Your task to perform on an android device: delete the emails in spam in the gmail app Image 0: 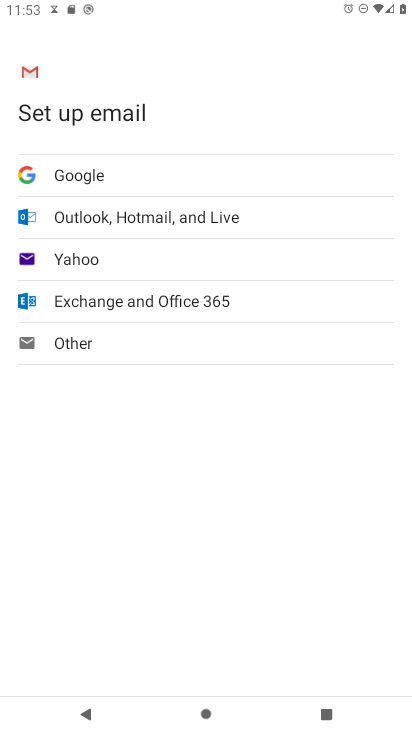
Step 0: press home button
Your task to perform on an android device: delete the emails in spam in the gmail app Image 1: 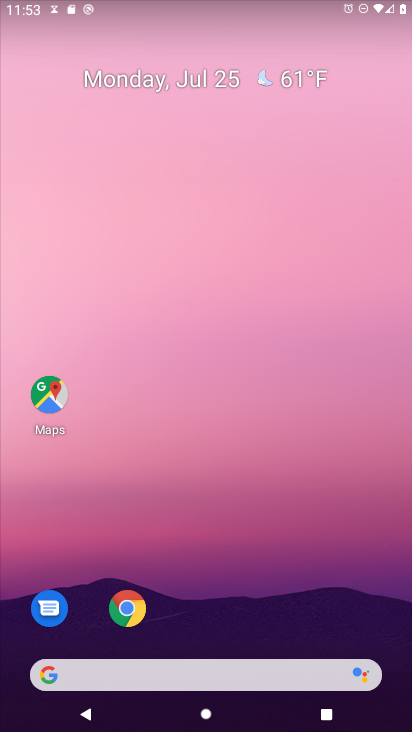
Step 1: drag from (171, 670) to (307, 0)
Your task to perform on an android device: delete the emails in spam in the gmail app Image 2: 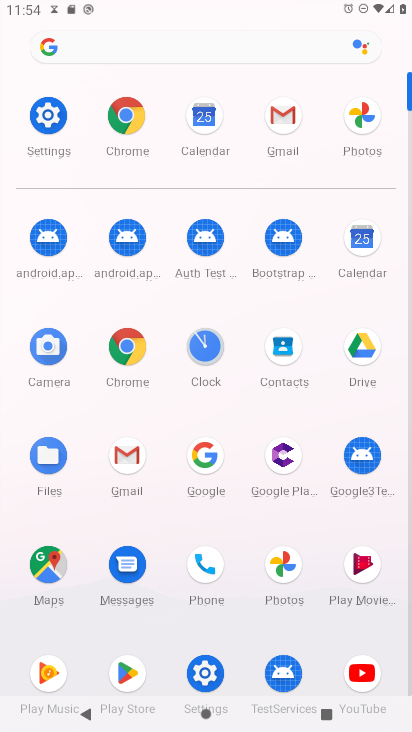
Step 2: click (125, 454)
Your task to perform on an android device: delete the emails in spam in the gmail app Image 3: 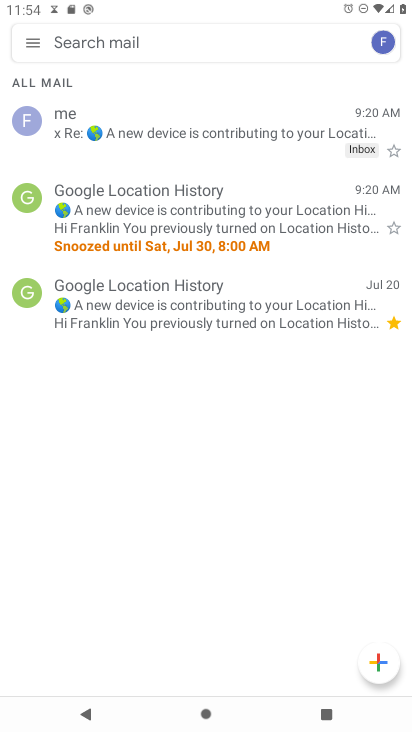
Step 3: click (125, 454)
Your task to perform on an android device: delete the emails in spam in the gmail app Image 4: 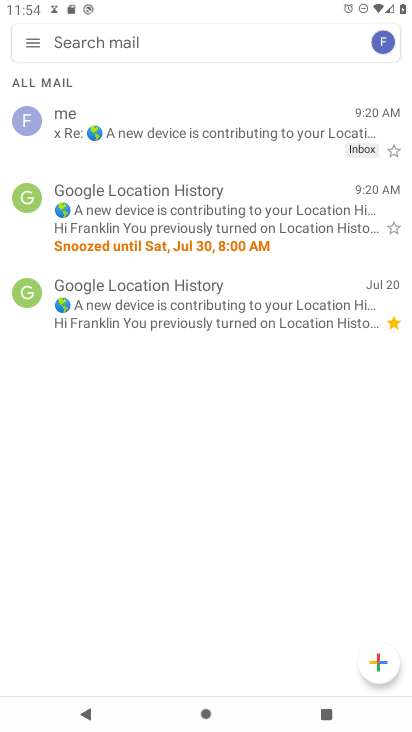
Step 4: click (35, 42)
Your task to perform on an android device: delete the emails in spam in the gmail app Image 5: 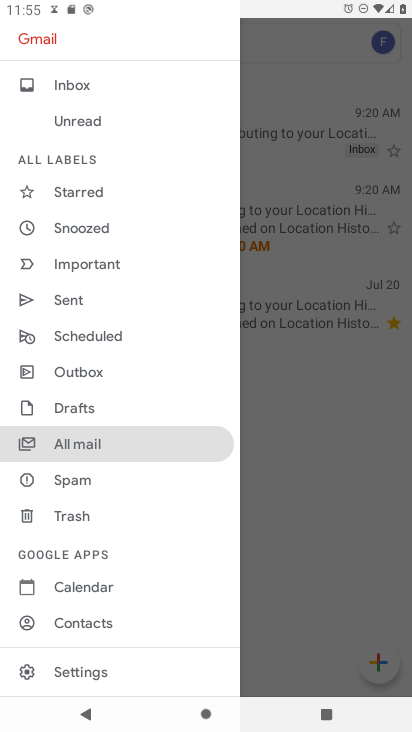
Step 5: drag from (83, 392) to (136, 235)
Your task to perform on an android device: delete the emails in spam in the gmail app Image 6: 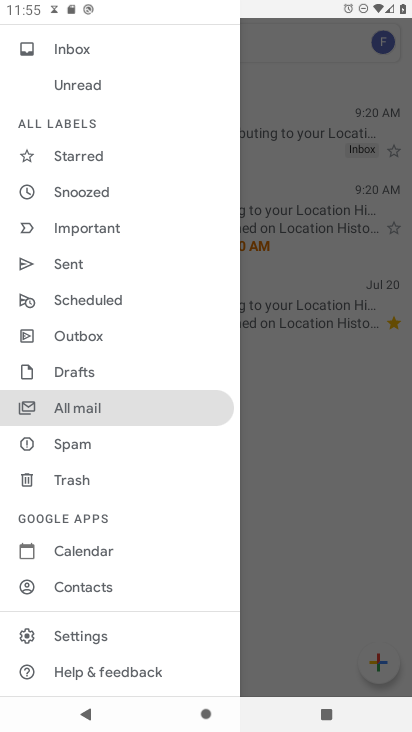
Step 6: click (60, 444)
Your task to perform on an android device: delete the emails in spam in the gmail app Image 7: 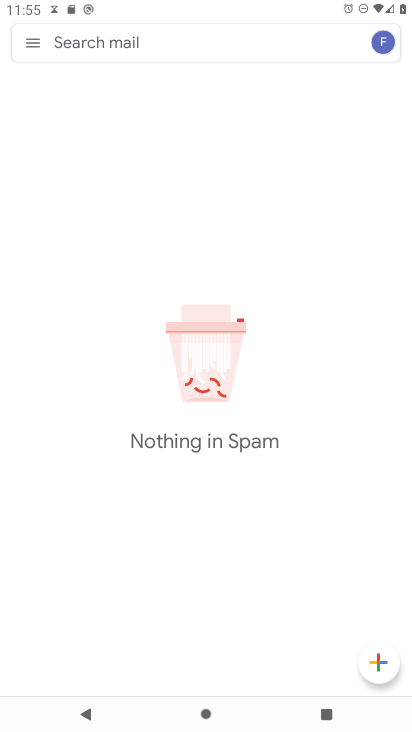
Step 7: click (32, 43)
Your task to perform on an android device: delete the emails in spam in the gmail app Image 8: 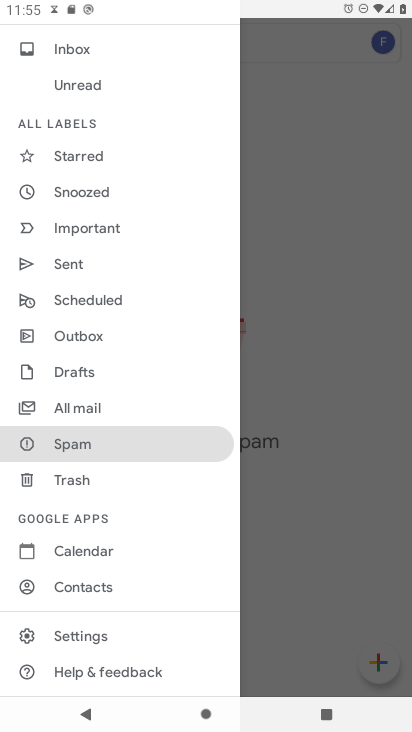
Step 8: task complete